Your task to perform on an android device: find snoozed emails in the gmail app Image 0: 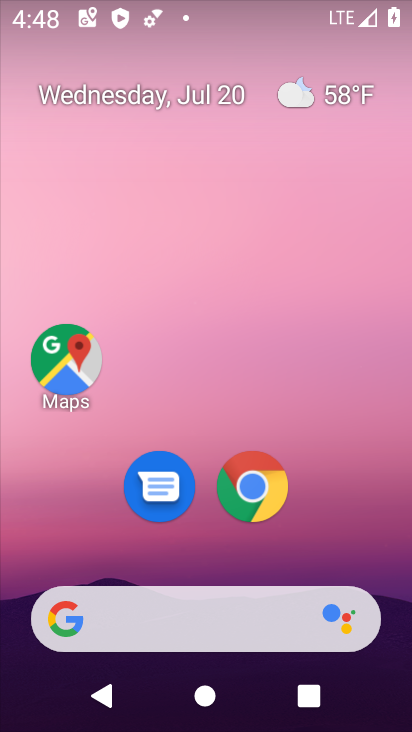
Step 0: drag from (171, 546) to (223, 19)
Your task to perform on an android device: find snoozed emails in the gmail app Image 1: 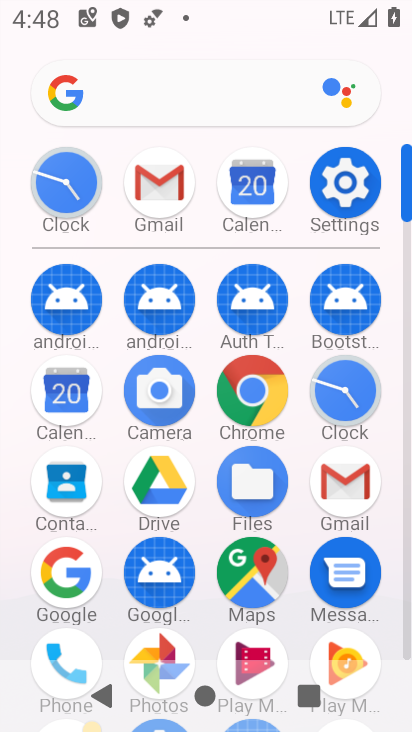
Step 1: click (165, 179)
Your task to perform on an android device: find snoozed emails in the gmail app Image 2: 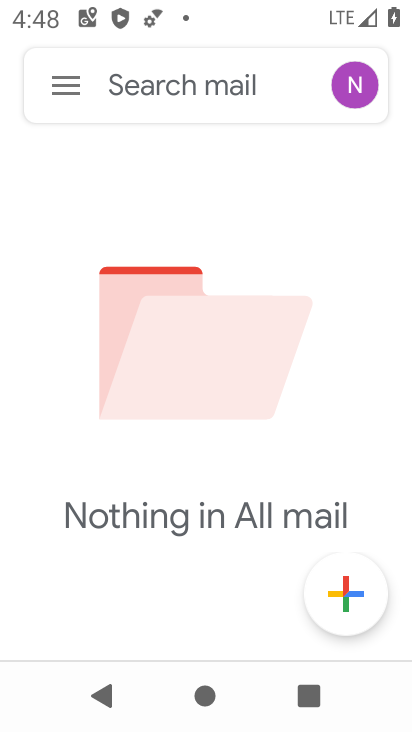
Step 2: click (51, 79)
Your task to perform on an android device: find snoozed emails in the gmail app Image 3: 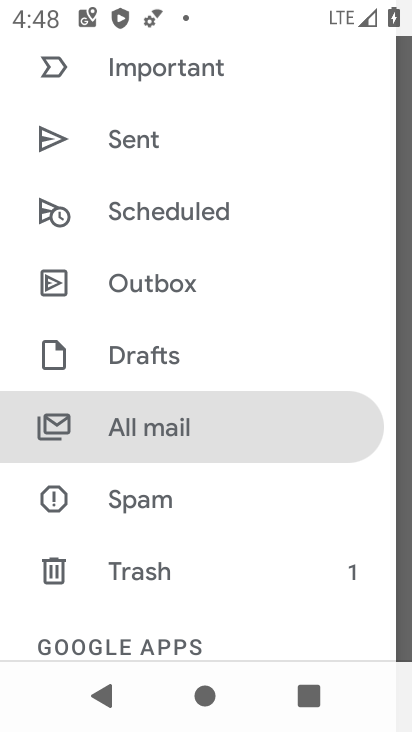
Step 3: drag from (166, 152) to (180, 557)
Your task to perform on an android device: find snoozed emails in the gmail app Image 4: 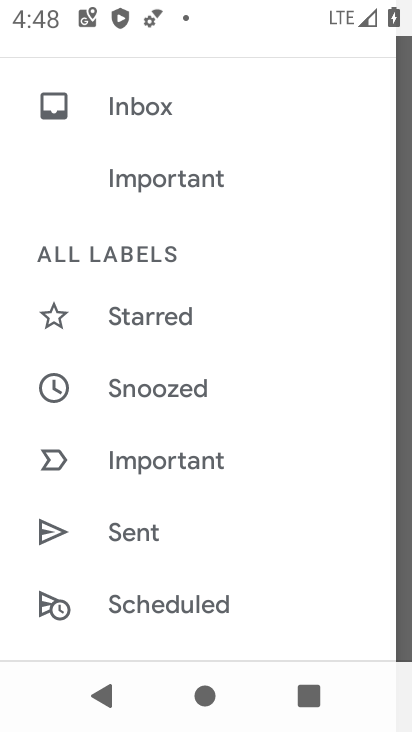
Step 4: click (151, 389)
Your task to perform on an android device: find snoozed emails in the gmail app Image 5: 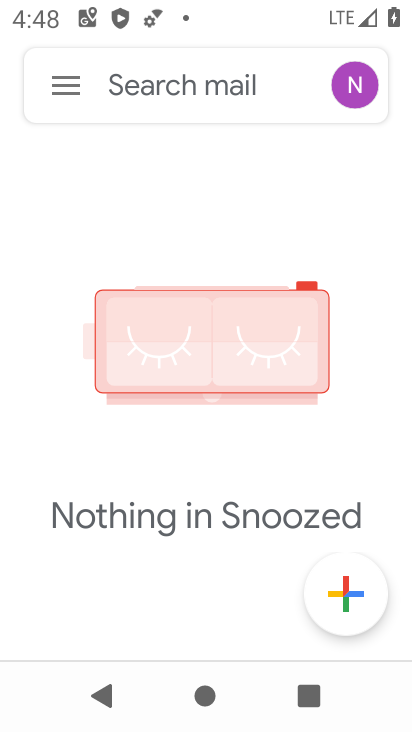
Step 5: task complete